Your task to perform on an android device: check data usage Image 0: 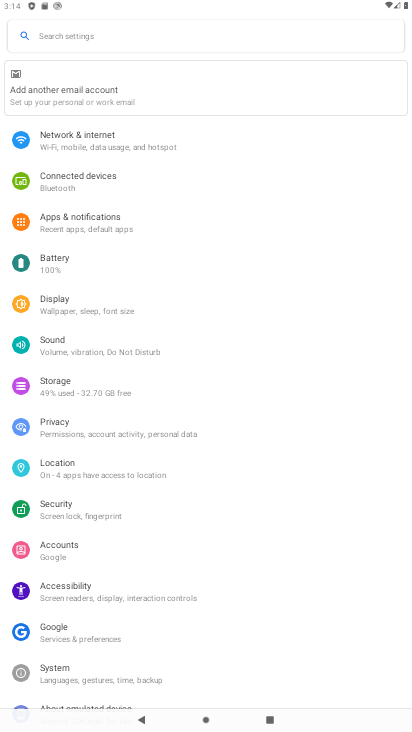
Step 0: press home button
Your task to perform on an android device: check data usage Image 1: 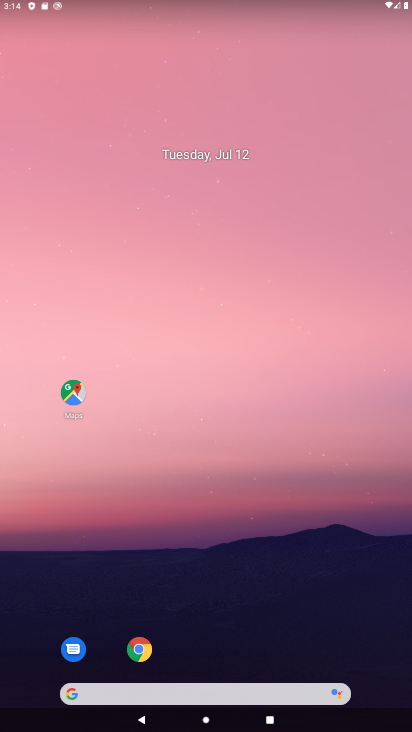
Step 1: drag from (209, 662) to (228, 114)
Your task to perform on an android device: check data usage Image 2: 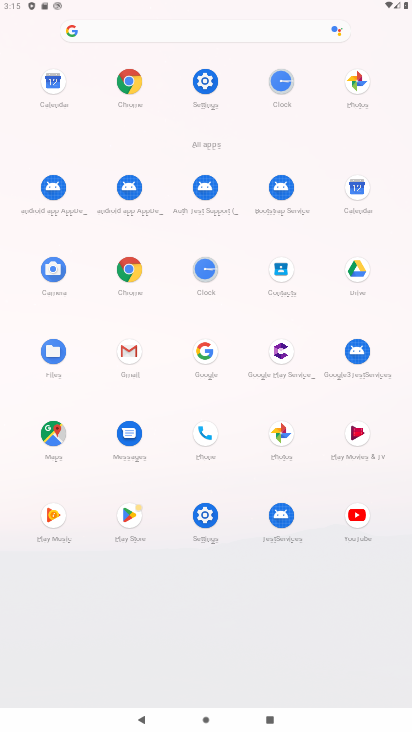
Step 2: click (200, 83)
Your task to perform on an android device: check data usage Image 3: 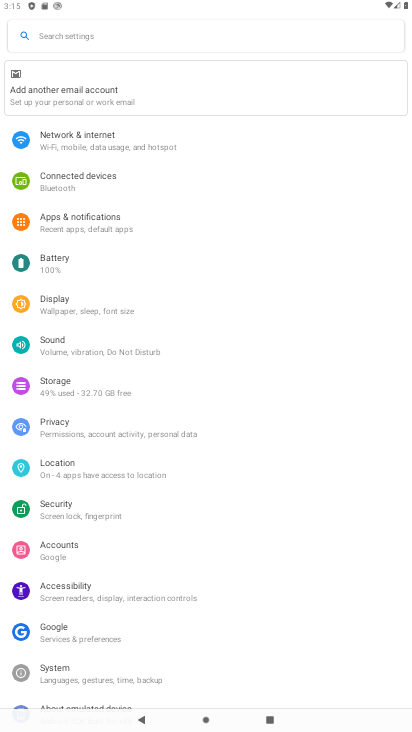
Step 3: click (94, 137)
Your task to perform on an android device: check data usage Image 4: 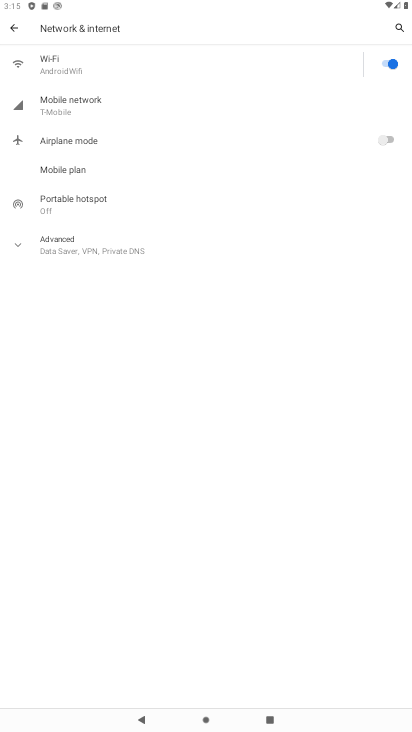
Step 4: click (85, 101)
Your task to perform on an android device: check data usage Image 5: 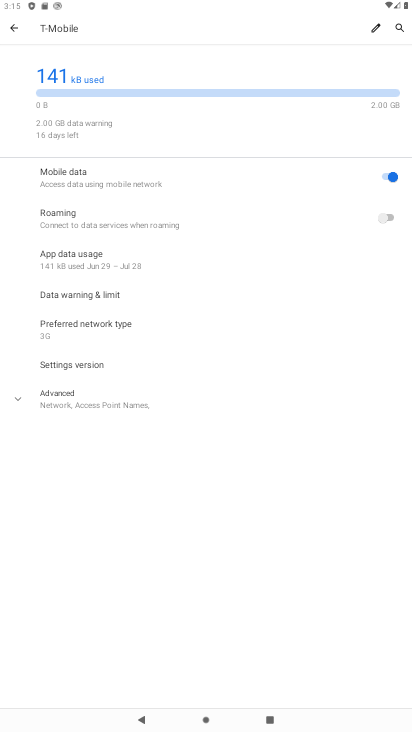
Step 5: click (109, 253)
Your task to perform on an android device: check data usage Image 6: 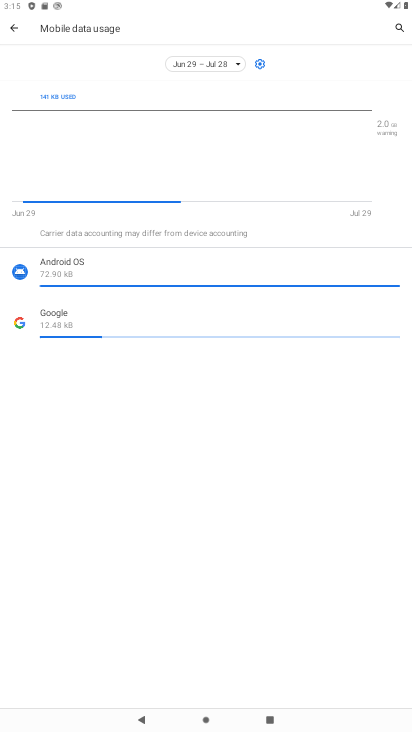
Step 6: task complete